Your task to perform on an android device: find photos in the google photos app Image 0: 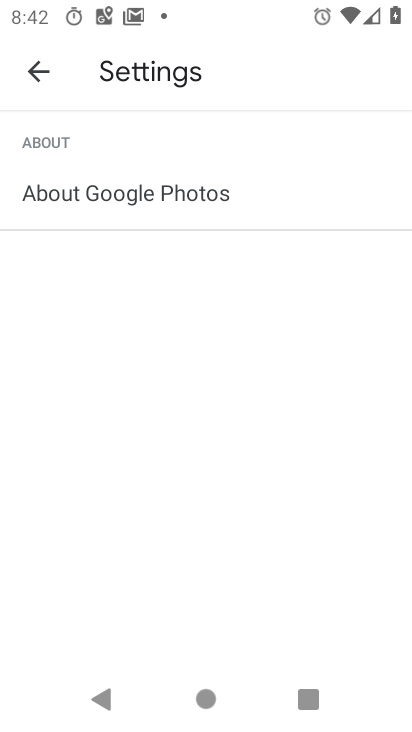
Step 0: press home button
Your task to perform on an android device: find photos in the google photos app Image 1: 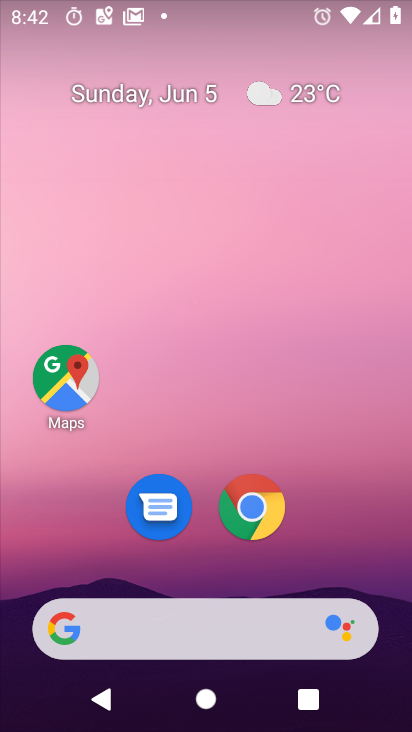
Step 1: drag from (210, 643) to (214, 205)
Your task to perform on an android device: find photos in the google photos app Image 2: 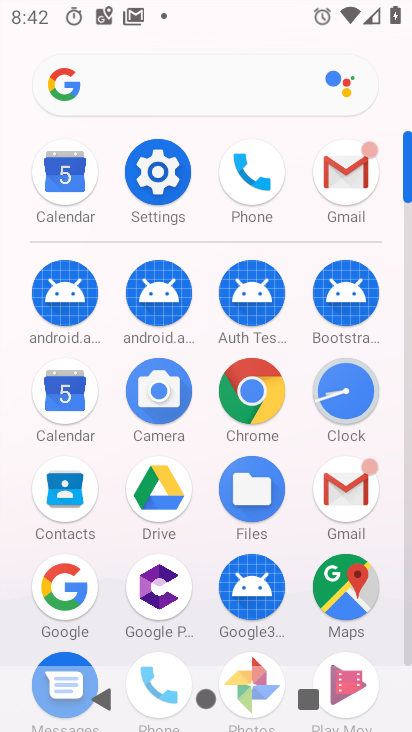
Step 2: click (252, 662)
Your task to perform on an android device: find photos in the google photos app Image 3: 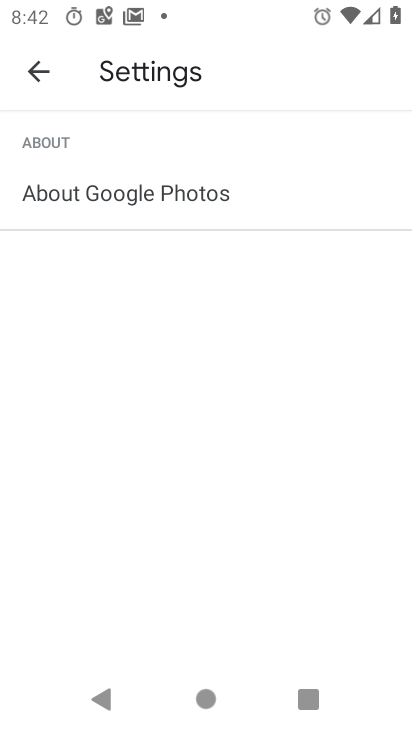
Step 3: click (41, 79)
Your task to perform on an android device: find photos in the google photos app Image 4: 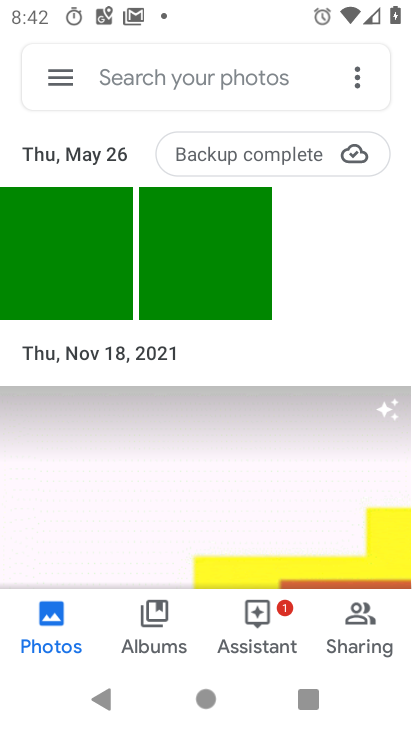
Step 4: task complete